Your task to perform on an android device: Go to Yahoo.com Image 0: 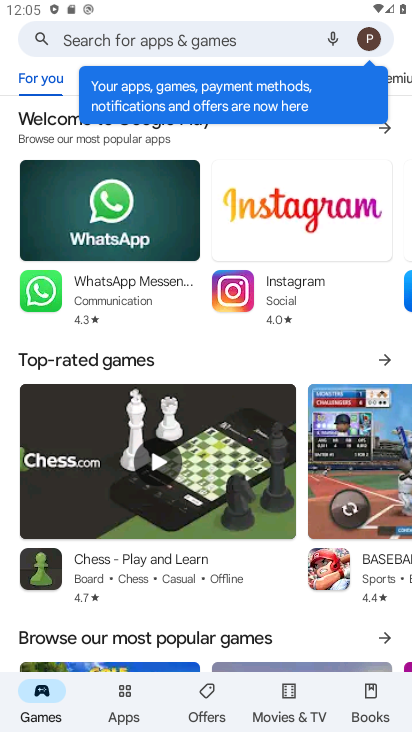
Step 0: press home button
Your task to perform on an android device: Go to Yahoo.com Image 1: 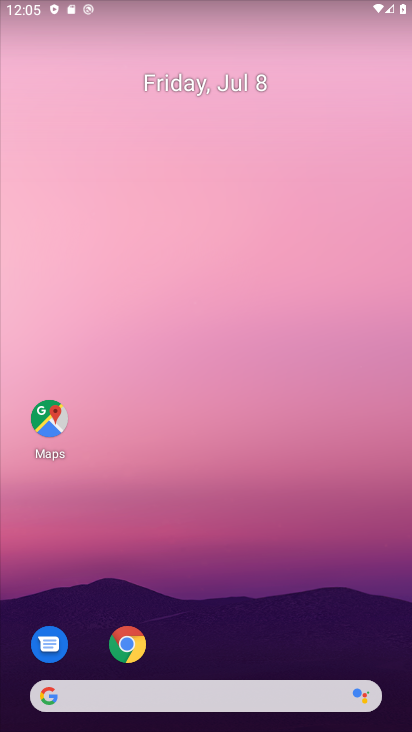
Step 1: drag from (199, 689) to (92, 84)
Your task to perform on an android device: Go to Yahoo.com Image 2: 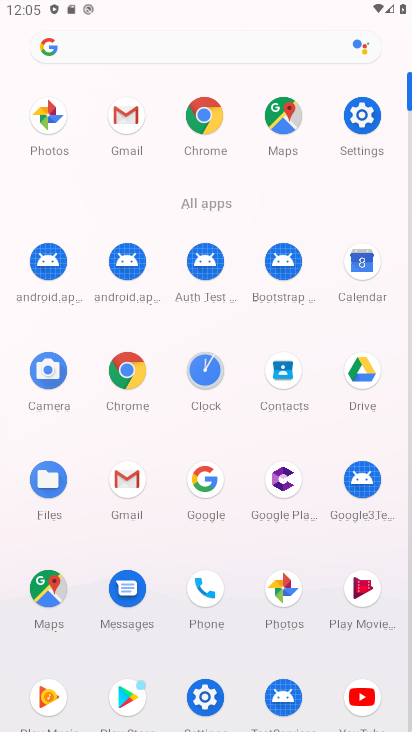
Step 2: click (194, 130)
Your task to perform on an android device: Go to Yahoo.com Image 3: 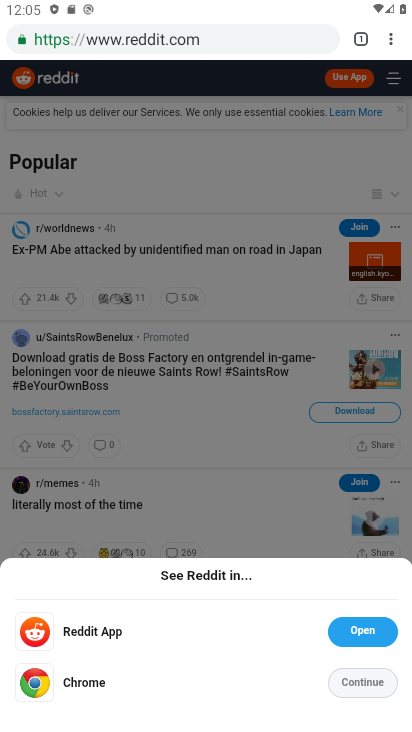
Step 3: click (229, 36)
Your task to perform on an android device: Go to Yahoo.com Image 4: 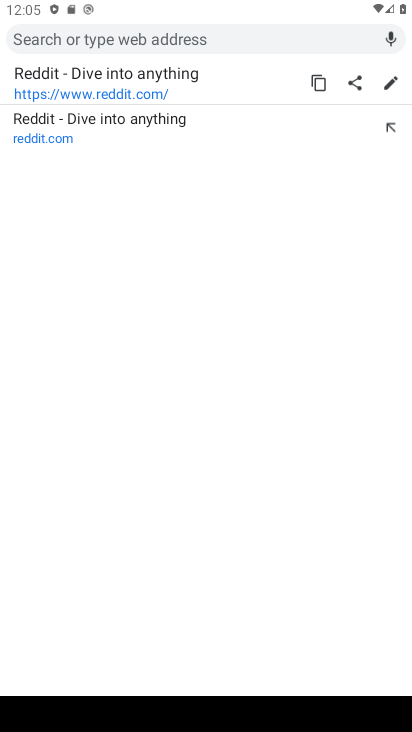
Step 4: type "yahoo.com"
Your task to perform on an android device: Go to Yahoo.com Image 5: 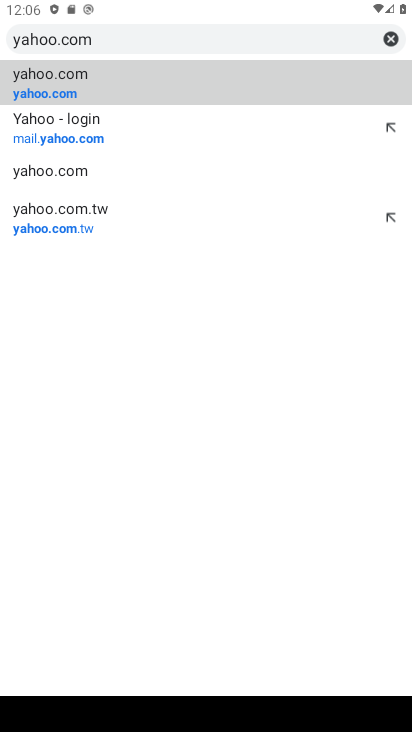
Step 5: click (208, 75)
Your task to perform on an android device: Go to Yahoo.com Image 6: 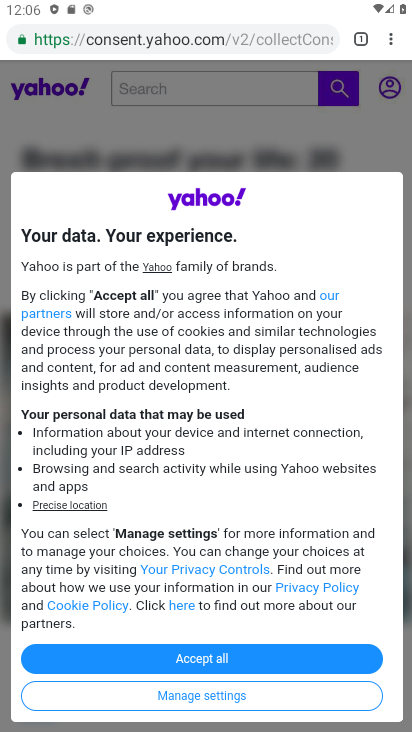
Step 6: task complete